Your task to perform on an android device: check android version Image 0: 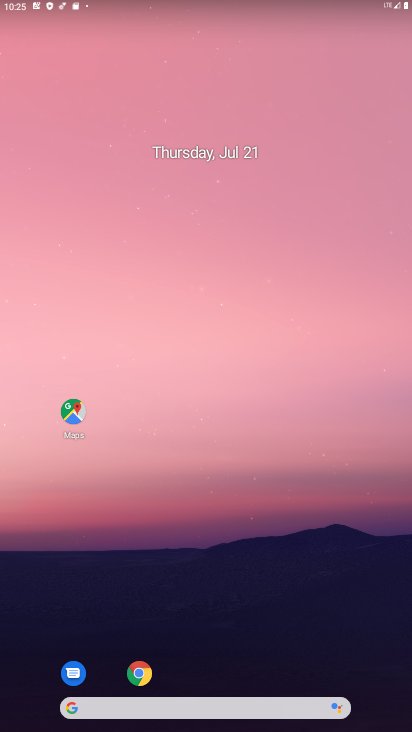
Step 0: drag from (211, 509) to (209, 198)
Your task to perform on an android device: check android version Image 1: 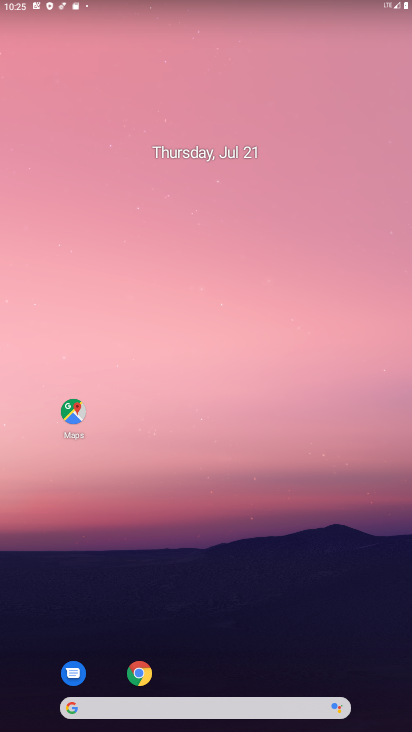
Step 1: drag from (196, 625) to (198, 87)
Your task to perform on an android device: check android version Image 2: 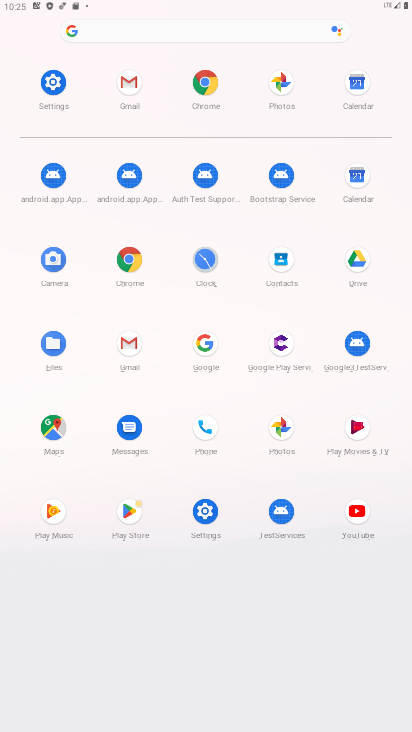
Step 2: click (52, 80)
Your task to perform on an android device: check android version Image 3: 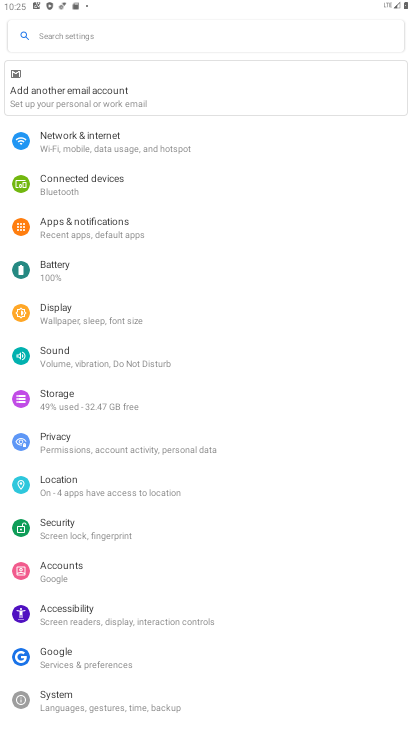
Step 3: drag from (156, 679) to (166, 150)
Your task to perform on an android device: check android version Image 4: 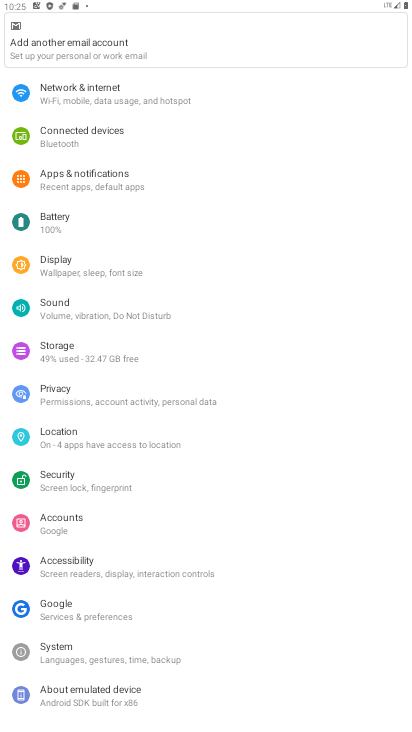
Step 4: click (105, 686)
Your task to perform on an android device: check android version Image 5: 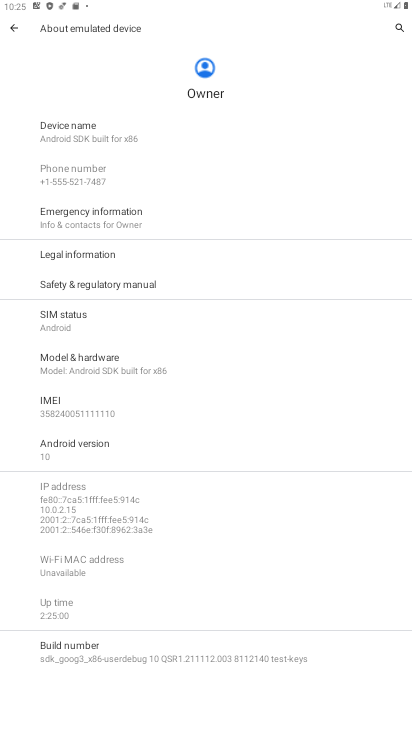
Step 5: click (106, 446)
Your task to perform on an android device: check android version Image 6: 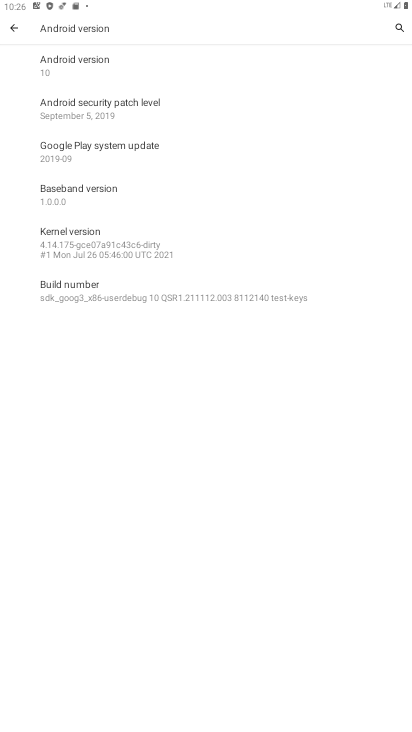
Step 6: click (62, 72)
Your task to perform on an android device: check android version Image 7: 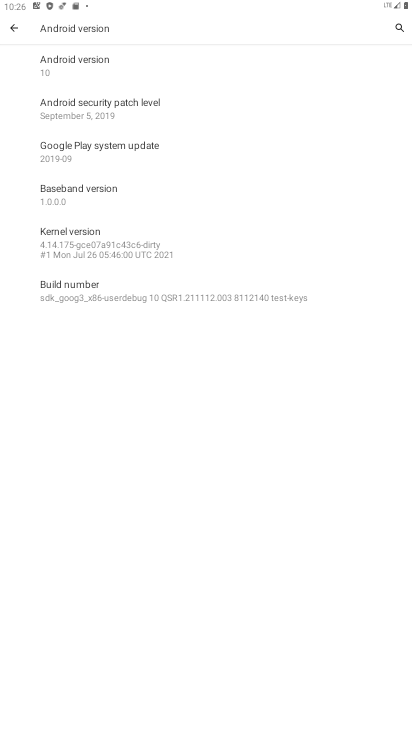
Step 7: task complete